Your task to perform on an android device: change notification settings in the gmail app Image 0: 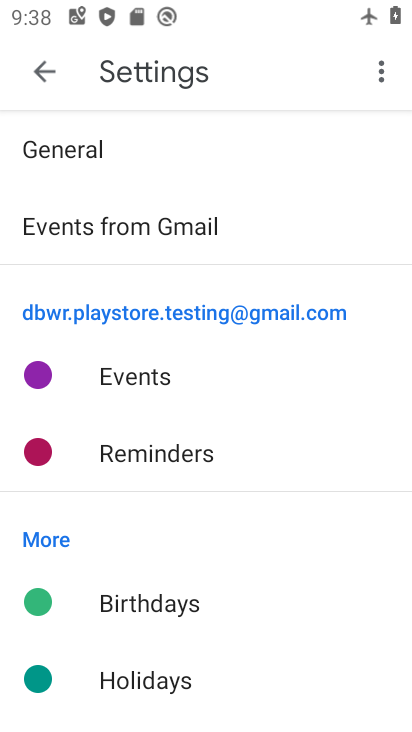
Step 0: press home button
Your task to perform on an android device: change notification settings in the gmail app Image 1: 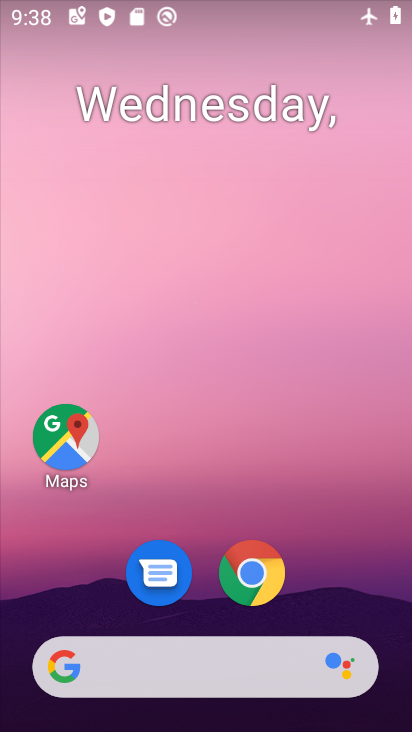
Step 1: drag from (342, 273) to (344, 140)
Your task to perform on an android device: change notification settings in the gmail app Image 2: 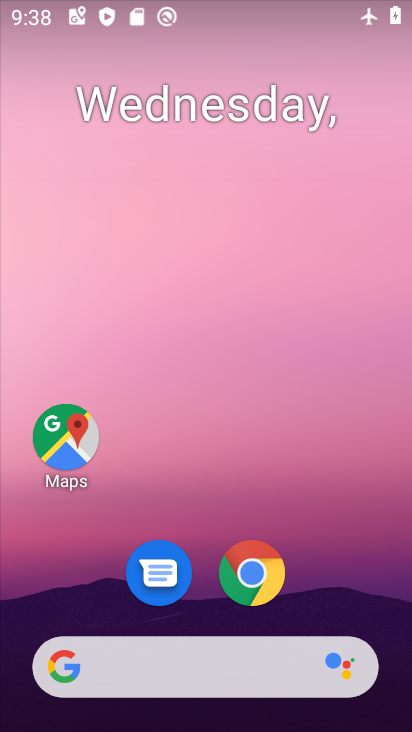
Step 2: drag from (388, 605) to (352, 228)
Your task to perform on an android device: change notification settings in the gmail app Image 3: 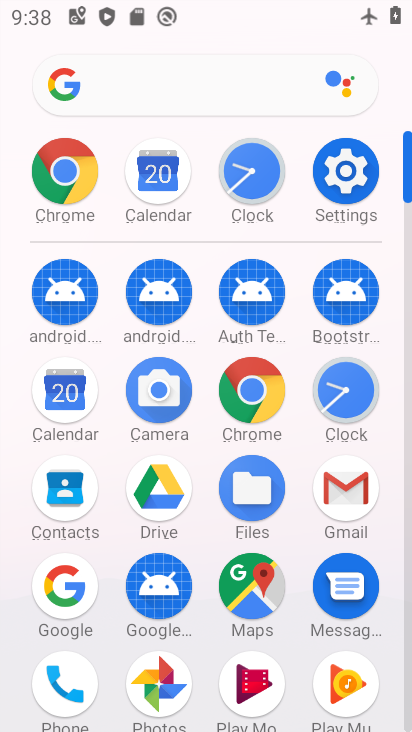
Step 3: click (336, 482)
Your task to perform on an android device: change notification settings in the gmail app Image 4: 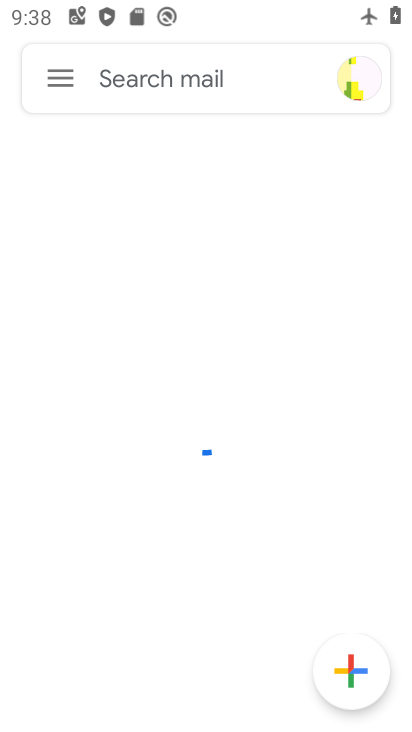
Step 4: click (44, 82)
Your task to perform on an android device: change notification settings in the gmail app Image 5: 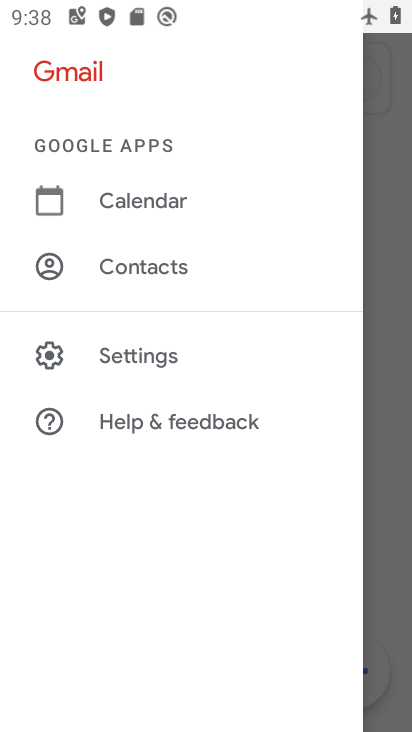
Step 5: click (374, 268)
Your task to perform on an android device: change notification settings in the gmail app Image 6: 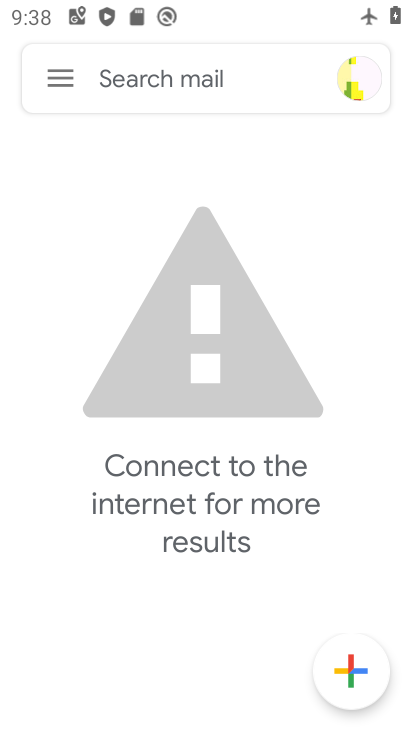
Step 6: click (61, 71)
Your task to perform on an android device: change notification settings in the gmail app Image 7: 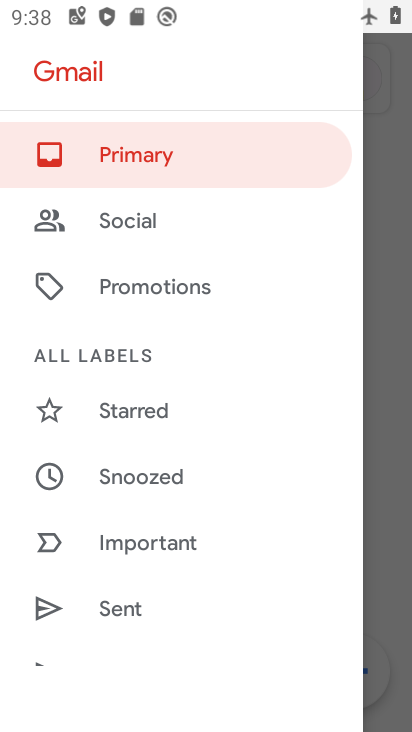
Step 7: drag from (253, 643) to (279, 296)
Your task to perform on an android device: change notification settings in the gmail app Image 8: 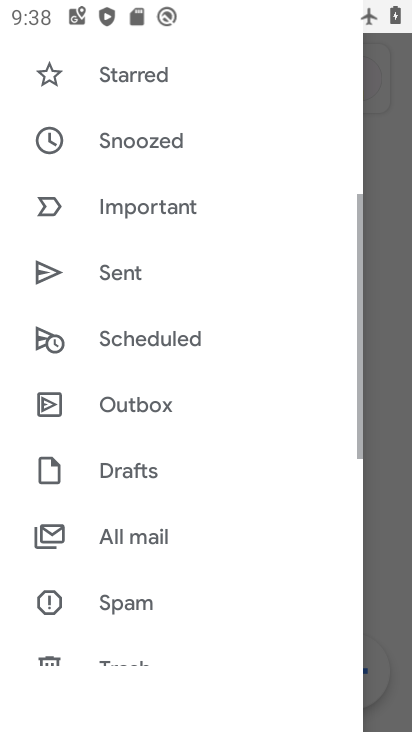
Step 8: drag from (229, 618) to (232, 324)
Your task to perform on an android device: change notification settings in the gmail app Image 9: 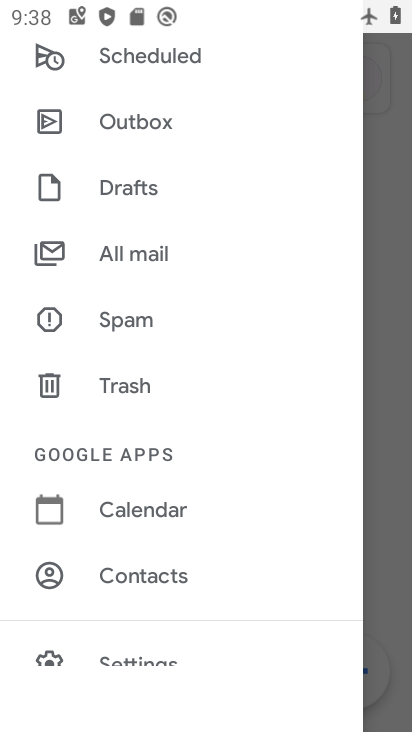
Step 9: drag from (222, 609) to (210, 391)
Your task to perform on an android device: change notification settings in the gmail app Image 10: 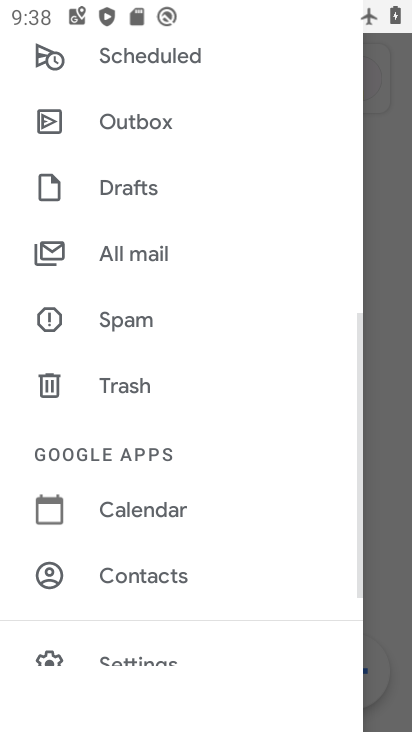
Step 10: click (96, 658)
Your task to perform on an android device: change notification settings in the gmail app Image 11: 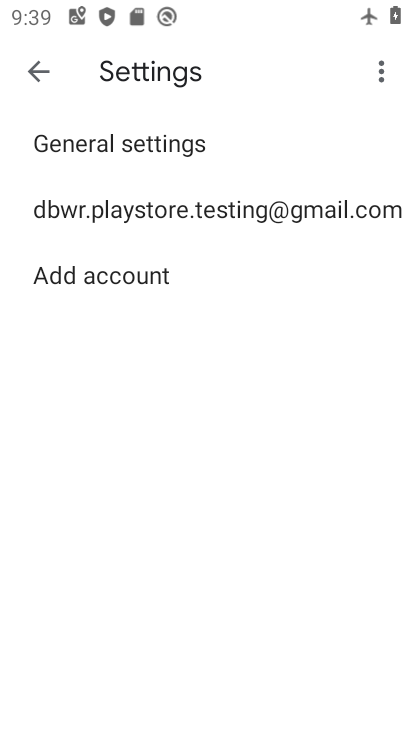
Step 11: click (152, 144)
Your task to perform on an android device: change notification settings in the gmail app Image 12: 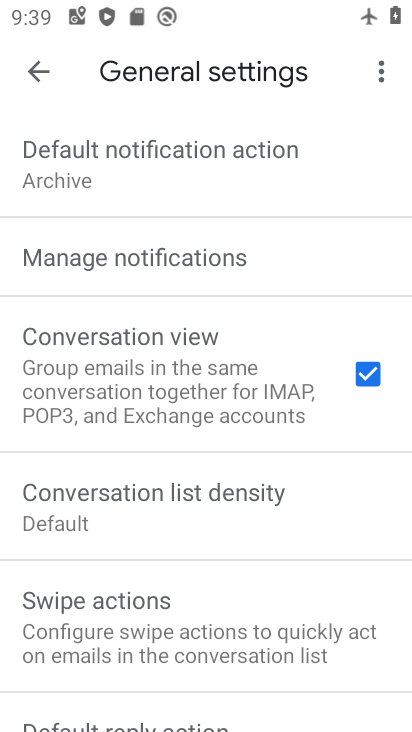
Step 12: click (151, 248)
Your task to perform on an android device: change notification settings in the gmail app Image 13: 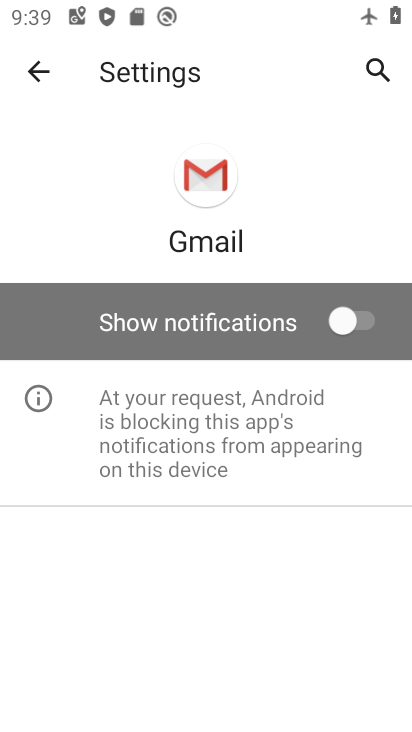
Step 13: click (371, 325)
Your task to perform on an android device: change notification settings in the gmail app Image 14: 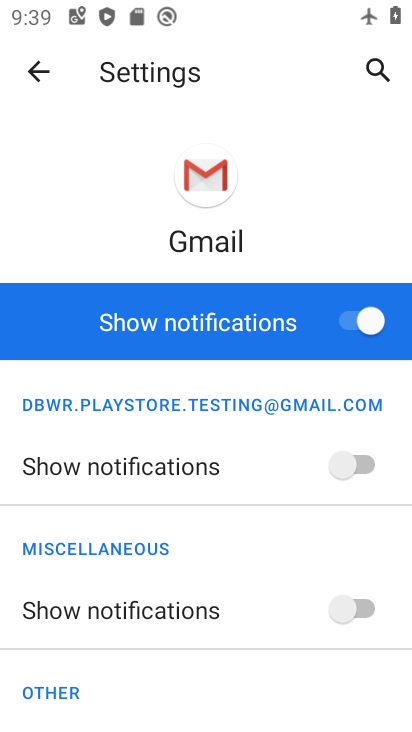
Step 14: task complete